Your task to perform on an android device: turn on wifi Image 0: 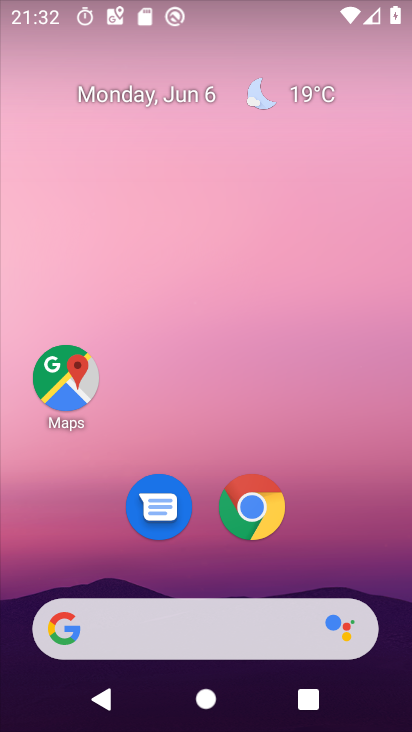
Step 0: drag from (336, 3) to (269, 366)
Your task to perform on an android device: turn on wifi Image 1: 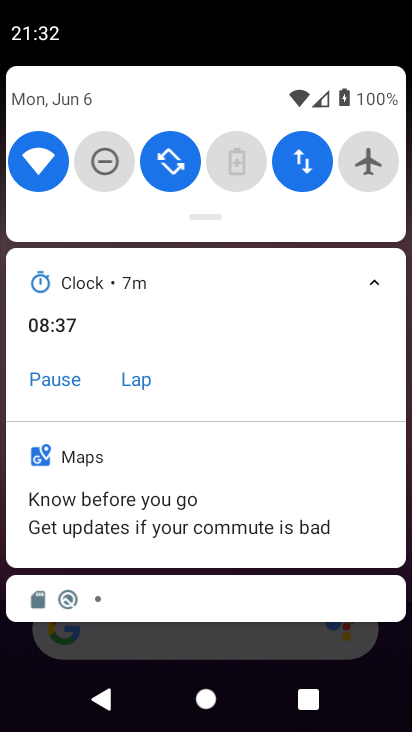
Step 1: task complete